Your task to perform on an android device: Open Yahoo.com Image 0: 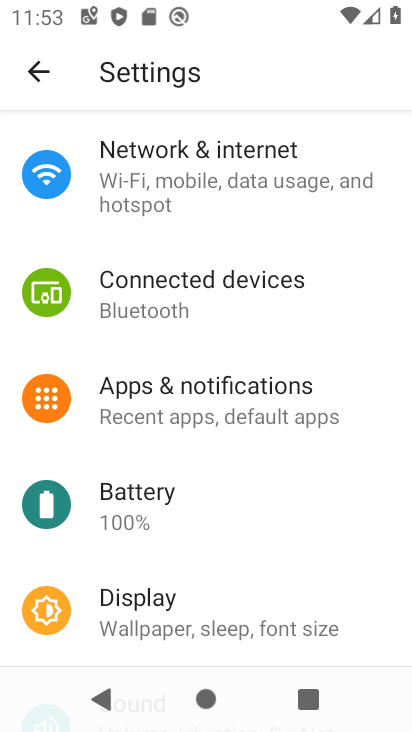
Step 0: press home button
Your task to perform on an android device: Open Yahoo.com Image 1: 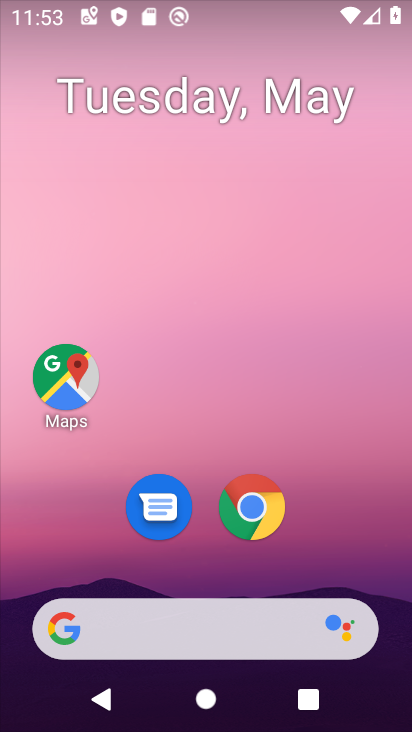
Step 1: click (337, 574)
Your task to perform on an android device: Open Yahoo.com Image 2: 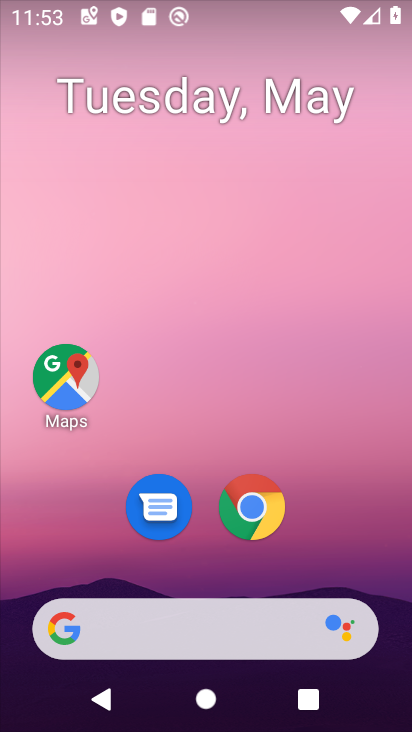
Step 2: click (258, 508)
Your task to perform on an android device: Open Yahoo.com Image 3: 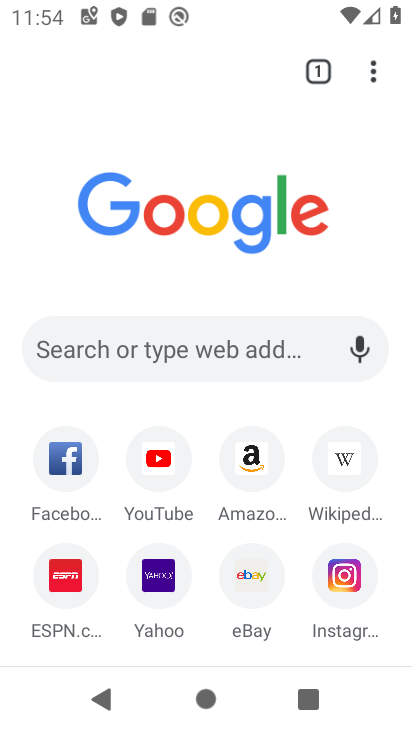
Step 3: click (173, 578)
Your task to perform on an android device: Open Yahoo.com Image 4: 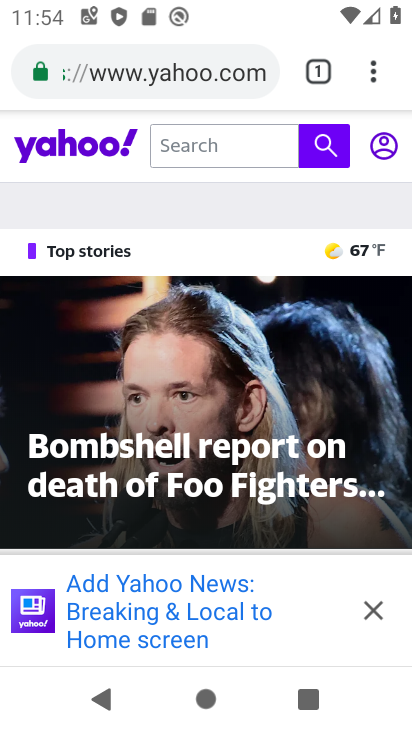
Step 4: task complete